Your task to perform on an android device: check out phone information Image 0: 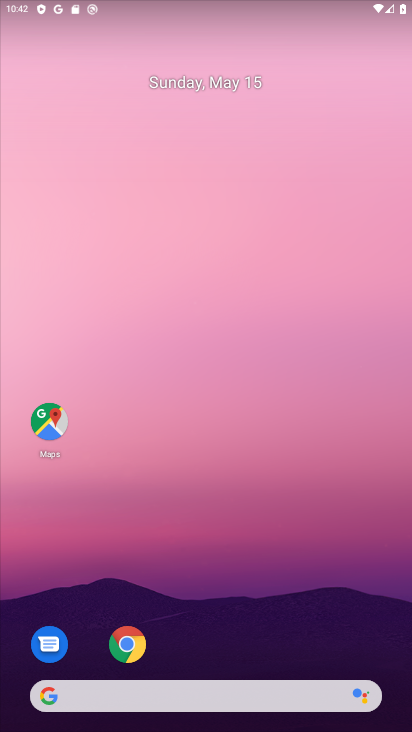
Step 0: drag from (218, 619) to (252, 153)
Your task to perform on an android device: check out phone information Image 1: 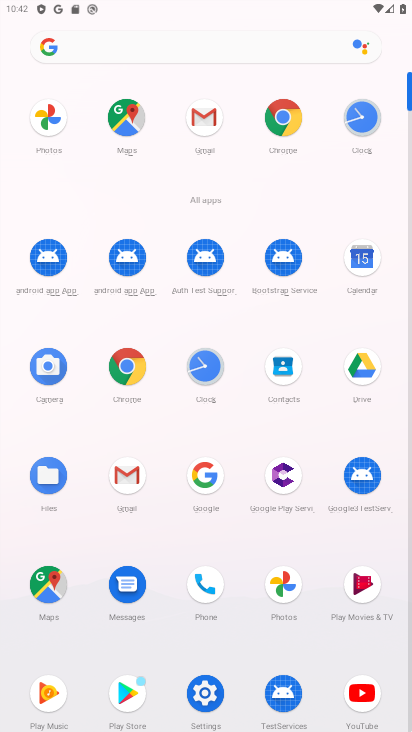
Step 1: click (210, 695)
Your task to perform on an android device: check out phone information Image 2: 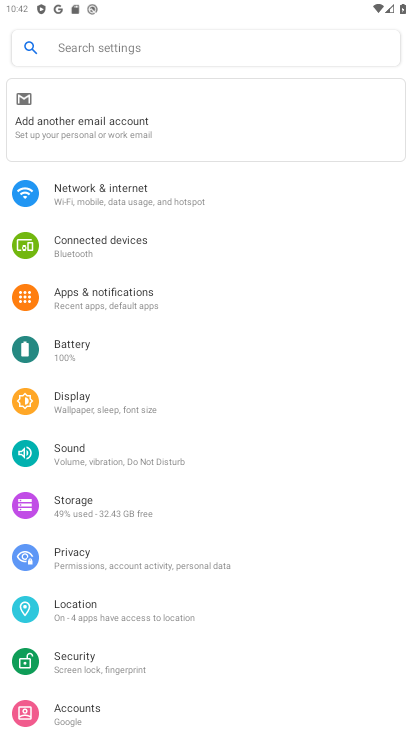
Step 2: drag from (248, 642) to (246, 378)
Your task to perform on an android device: check out phone information Image 3: 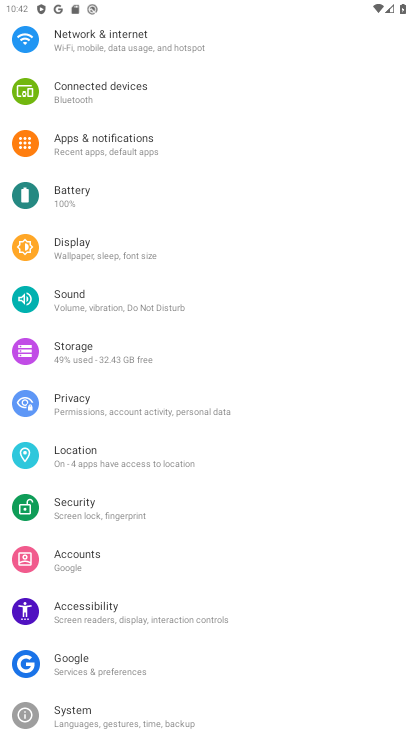
Step 3: drag from (210, 663) to (183, 409)
Your task to perform on an android device: check out phone information Image 4: 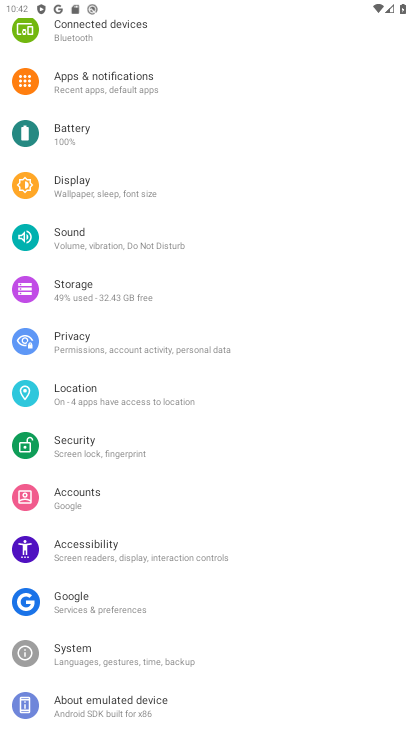
Step 4: click (165, 716)
Your task to perform on an android device: check out phone information Image 5: 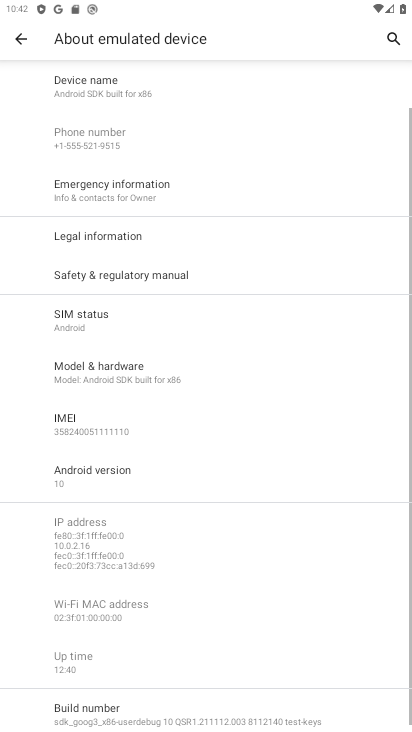
Step 5: task complete